Your task to perform on an android device: Set the phone to "Do not disturb". Image 0: 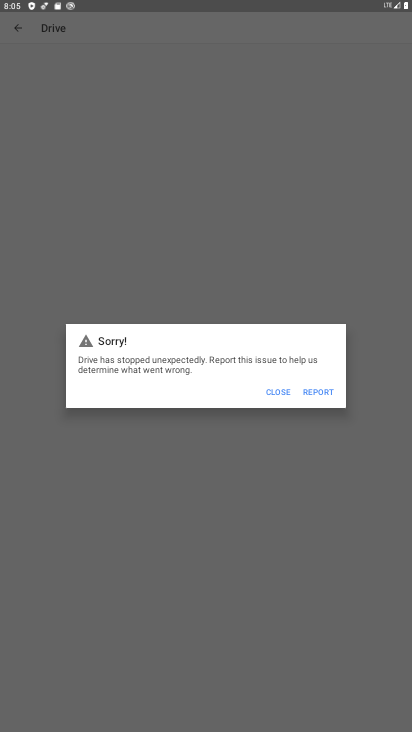
Step 0: press home button
Your task to perform on an android device: Set the phone to "Do not disturb". Image 1: 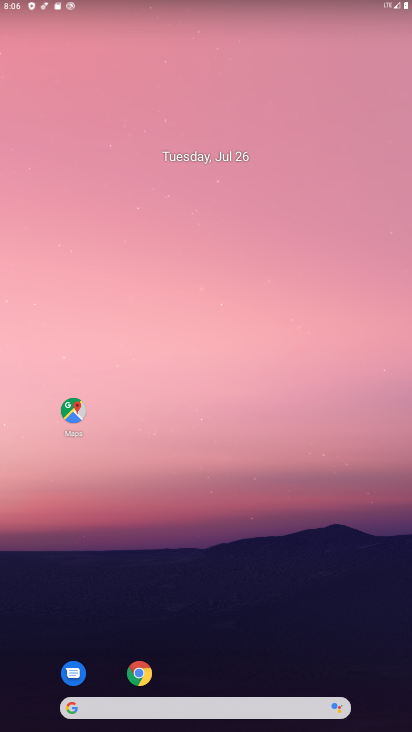
Step 1: drag from (196, 10) to (306, 581)
Your task to perform on an android device: Set the phone to "Do not disturb". Image 2: 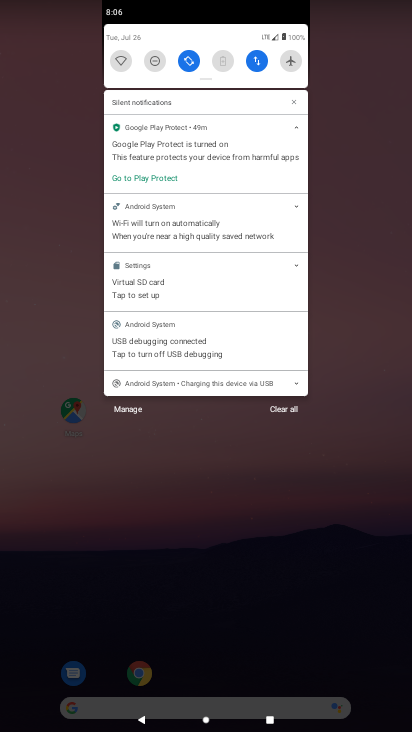
Step 2: click (151, 65)
Your task to perform on an android device: Set the phone to "Do not disturb". Image 3: 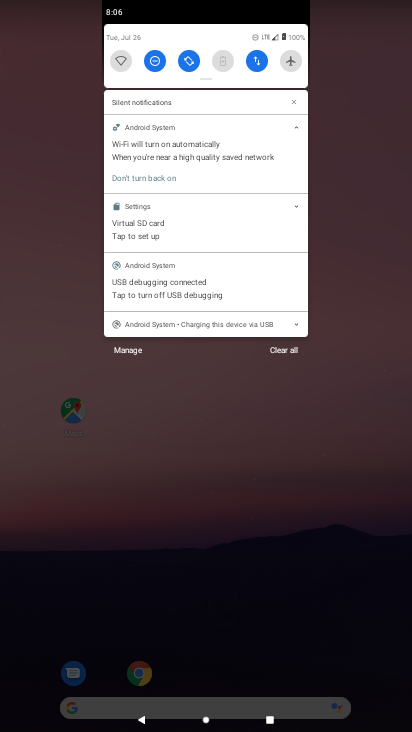
Step 3: task complete